Your task to perform on an android device: turn off notifications in google photos Image 0: 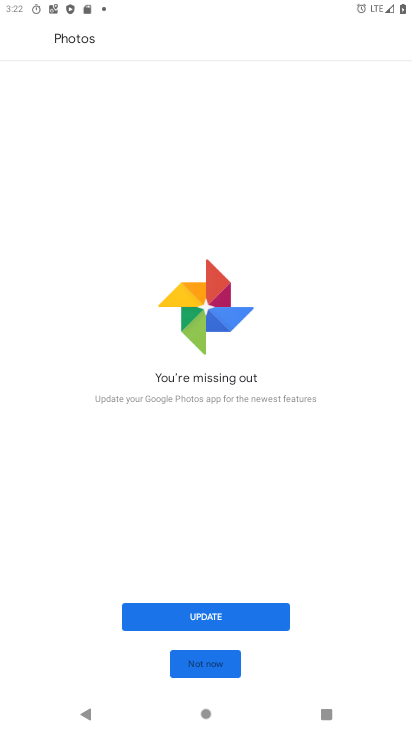
Step 0: task impossible